Your task to perform on an android device: open device folders in google photos Image 0: 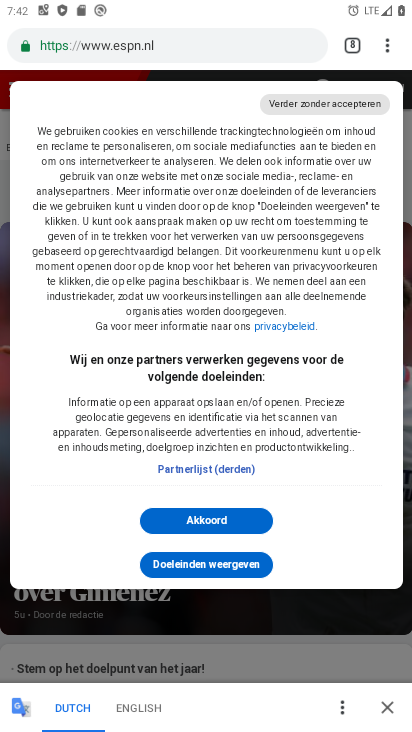
Step 0: press home button
Your task to perform on an android device: open device folders in google photos Image 1: 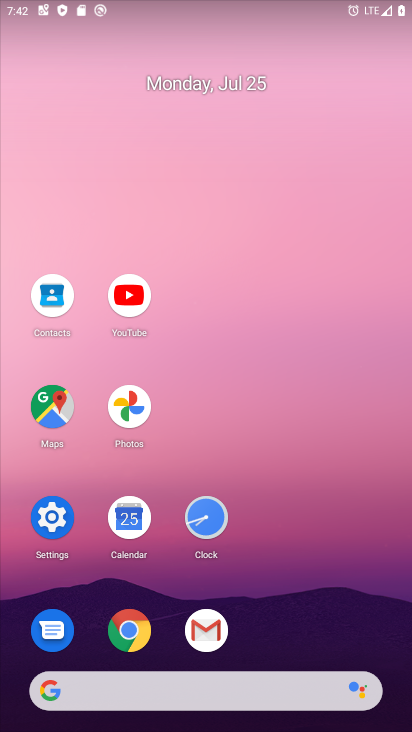
Step 1: click (126, 408)
Your task to perform on an android device: open device folders in google photos Image 2: 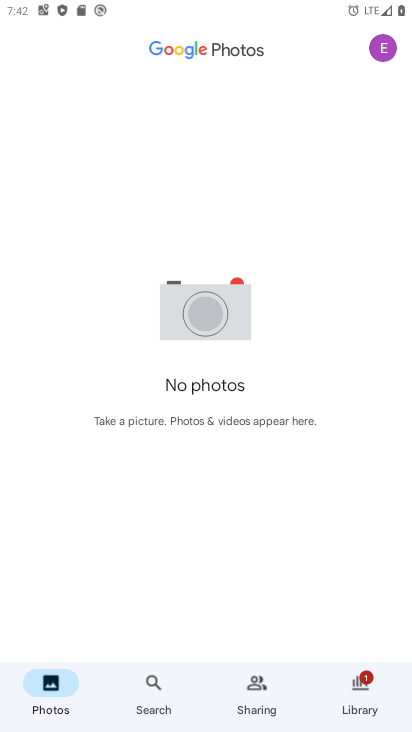
Step 2: click (360, 699)
Your task to perform on an android device: open device folders in google photos Image 3: 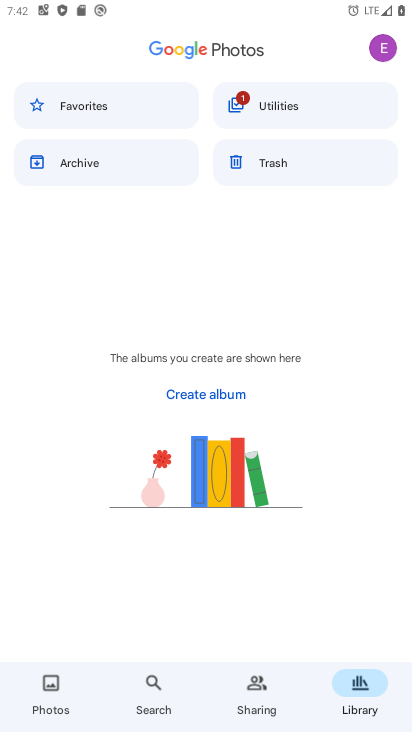
Step 3: click (177, 305)
Your task to perform on an android device: open device folders in google photos Image 4: 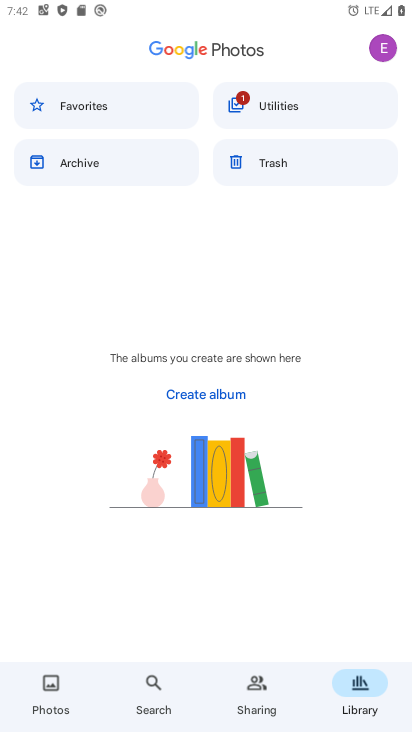
Step 4: click (379, 49)
Your task to perform on an android device: open device folders in google photos Image 5: 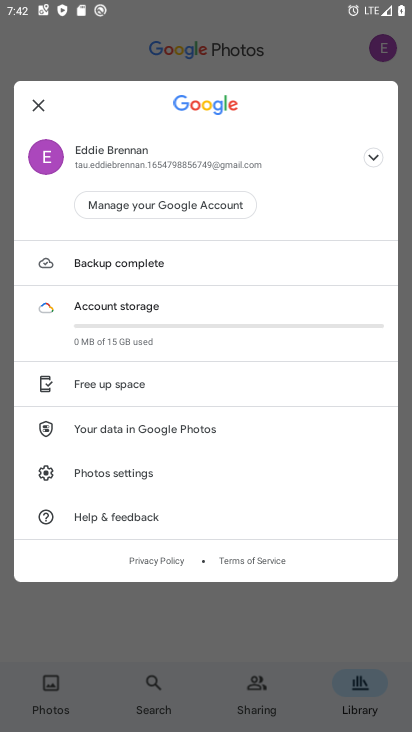
Step 5: click (41, 97)
Your task to perform on an android device: open device folders in google photos Image 6: 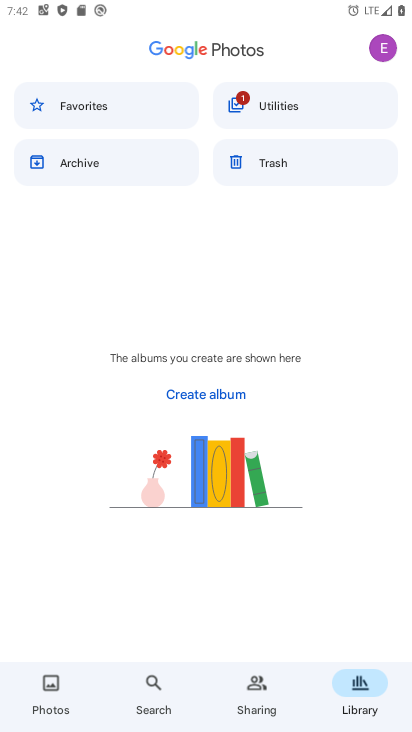
Step 6: click (153, 674)
Your task to perform on an android device: open device folders in google photos Image 7: 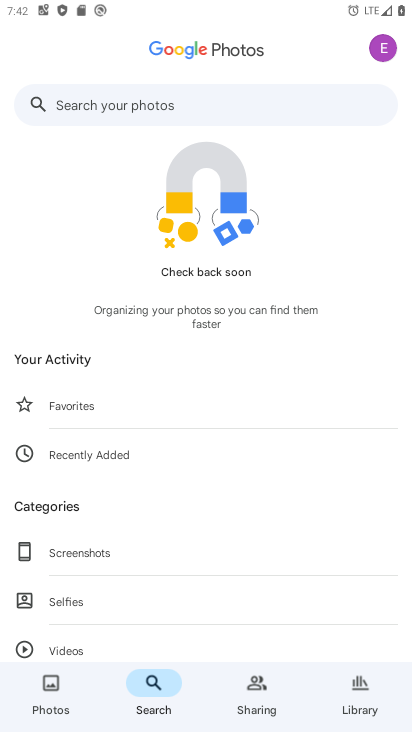
Step 7: type "device"
Your task to perform on an android device: open device folders in google photos Image 8: 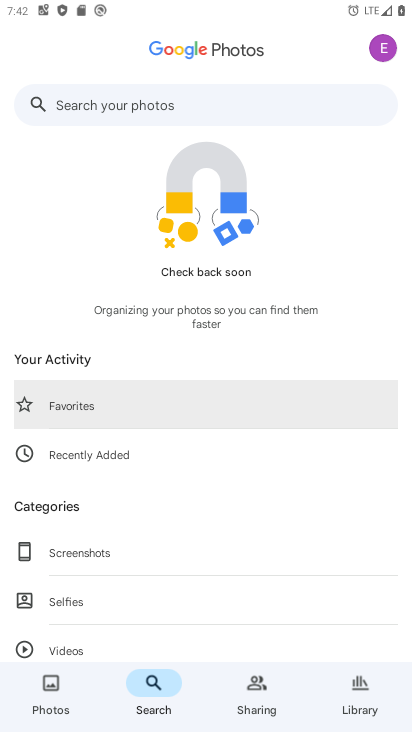
Step 8: click (119, 101)
Your task to perform on an android device: open device folders in google photos Image 9: 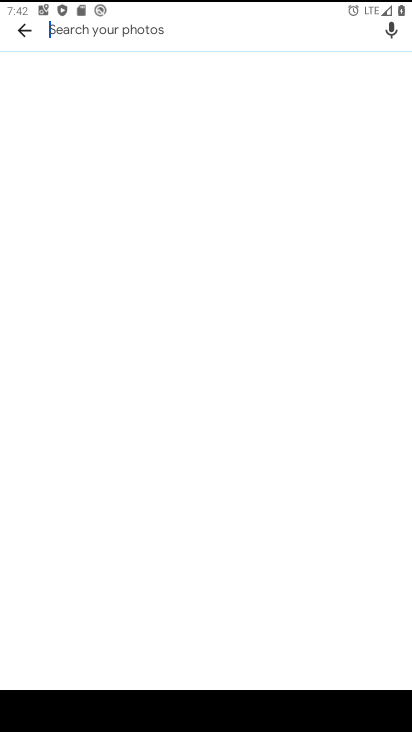
Step 9: type "device"
Your task to perform on an android device: open device folders in google photos Image 10: 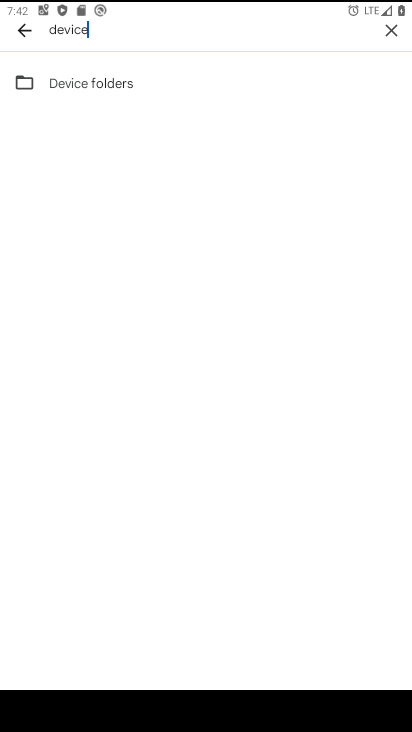
Step 10: click (90, 86)
Your task to perform on an android device: open device folders in google photos Image 11: 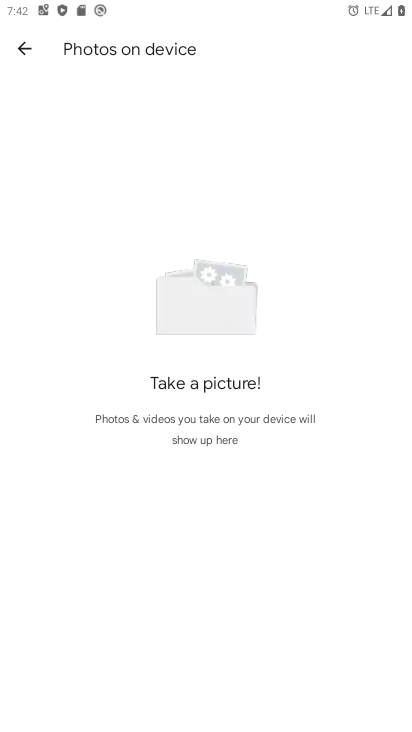
Step 11: task complete